Your task to perform on an android device: check storage Image 0: 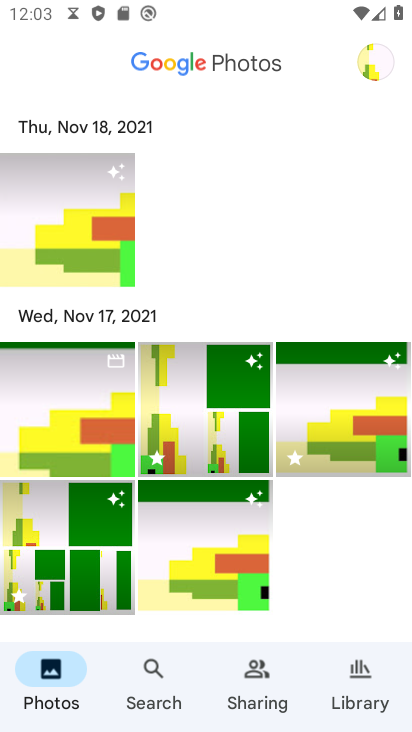
Step 0: press back button
Your task to perform on an android device: check storage Image 1: 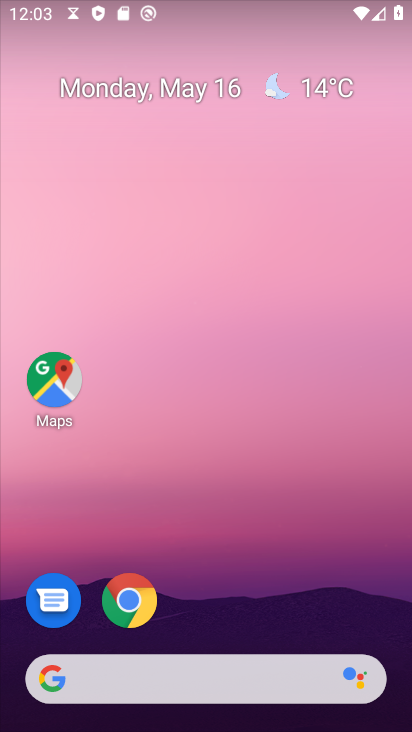
Step 1: drag from (247, 526) to (247, 73)
Your task to perform on an android device: check storage Image 2: 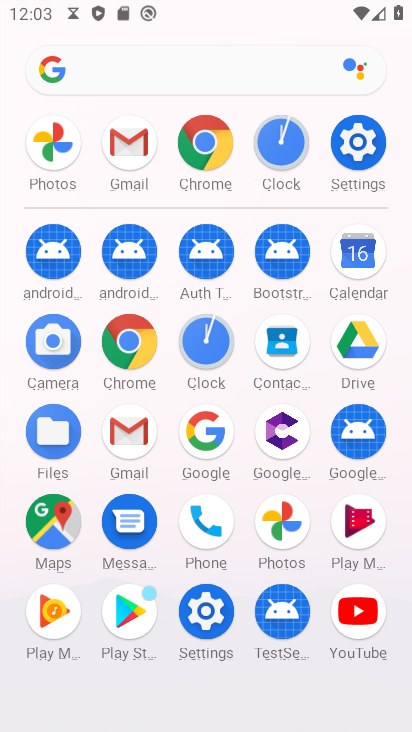
Step 2: click (203, 608)
Your task to perform on an android device: check storage Image 3: 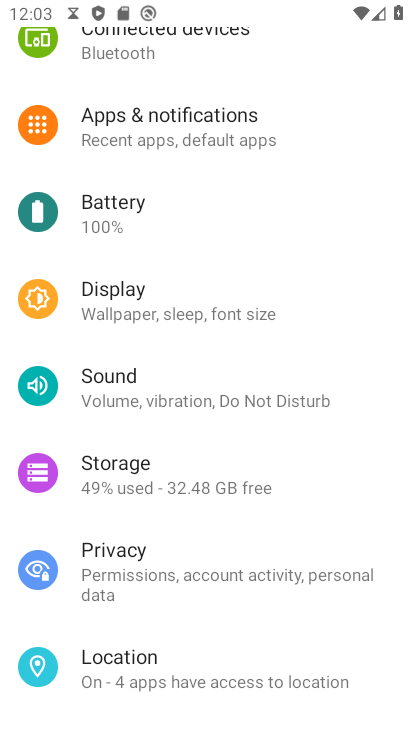
Step 3: click (159, 479)
Your task to perform on an android device: check storage Image 4: 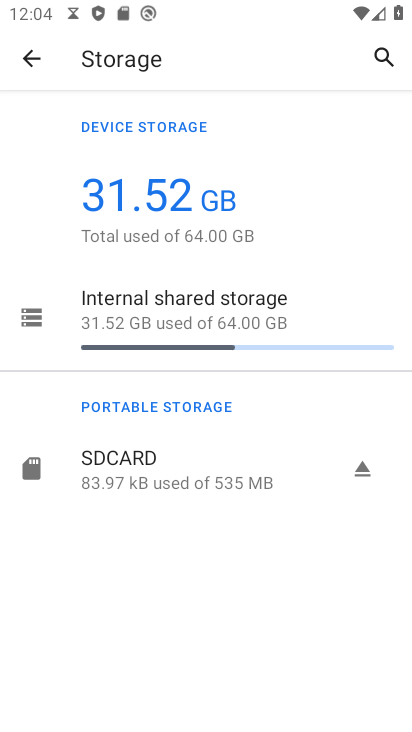
Step 4: task complete